Your task to perform on an android device: turn notification dots on Image 0: 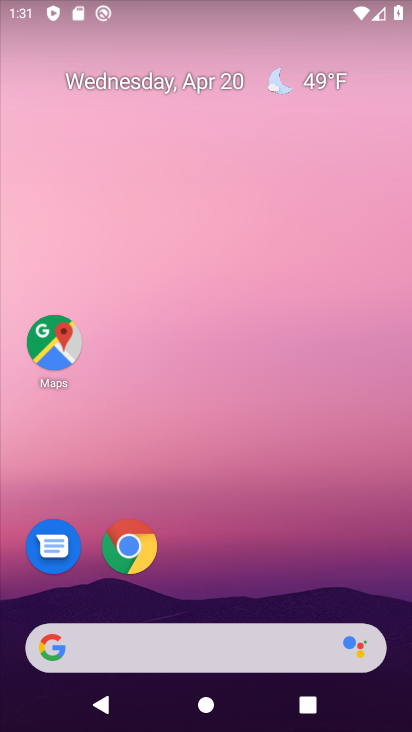
Step 0: drag from (206, 529) to (275, 93)
Your task to perform on an android device: turn notification dots on Image 1: 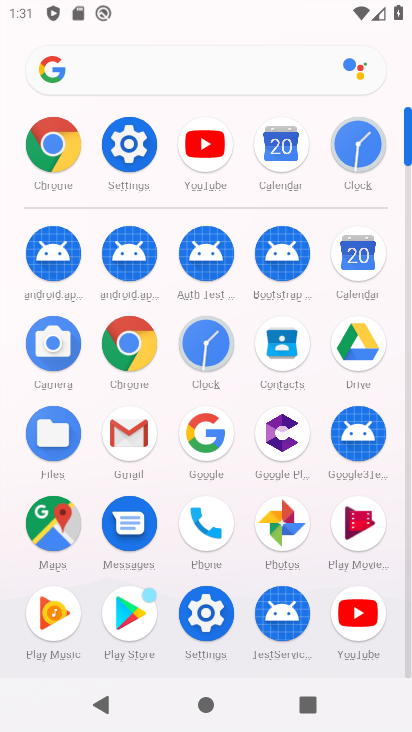
Step 1: click (122, 143)
Your task to perform on an android device: turn notification dots on Image 2: 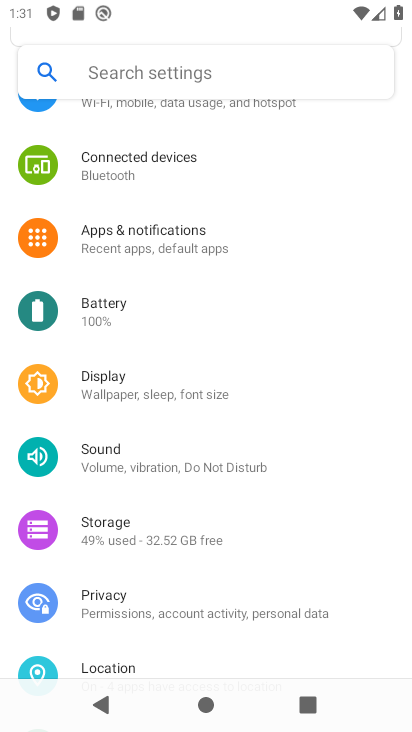
Step 2: click (210, 250)
Your task to perform on an android device: turn notification dots on Image 3: 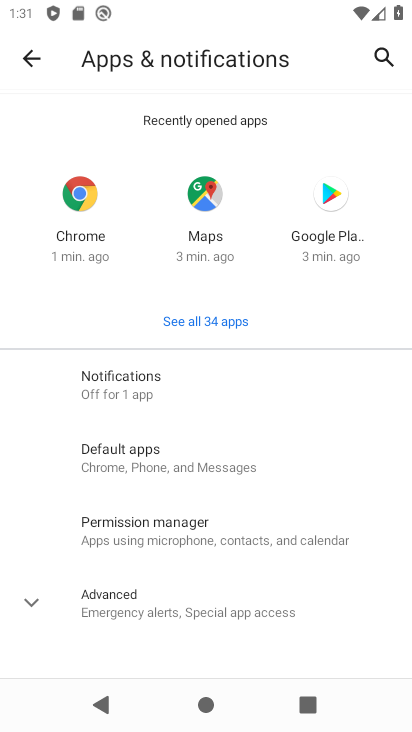
Step 3: click (169, 392)
Your task to perform on an android device: turn notification dots on Image 4: 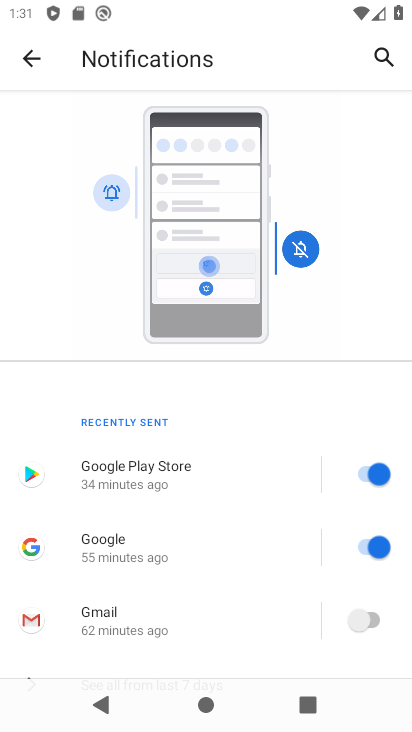
Step 4: drag from (167, 600) to (270, 268)
Your task to perform on an android device: turn notification dots on Image 5: 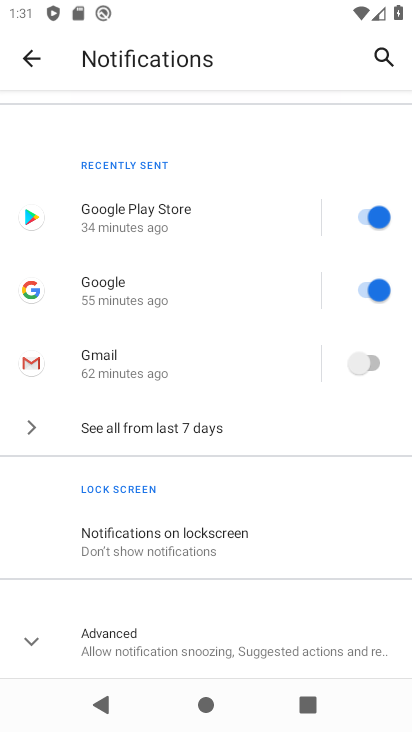
Step 5: click (171, 629)
Your task to perform on an android device: turn notification dots on Image 6: 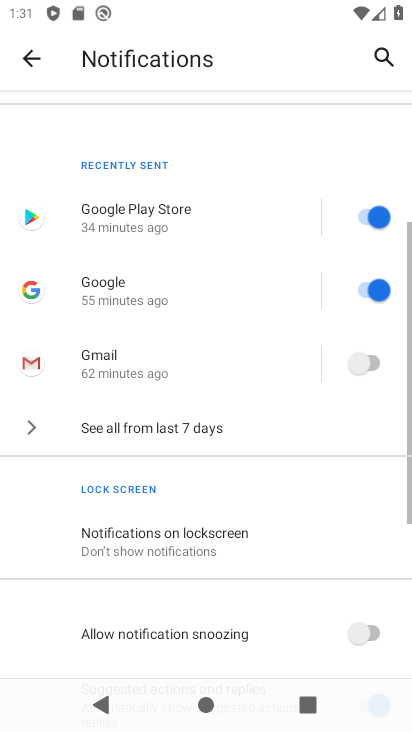
Step 6: task complete